Your task to perform on an android device: turn off notifications in google photos Image 0: 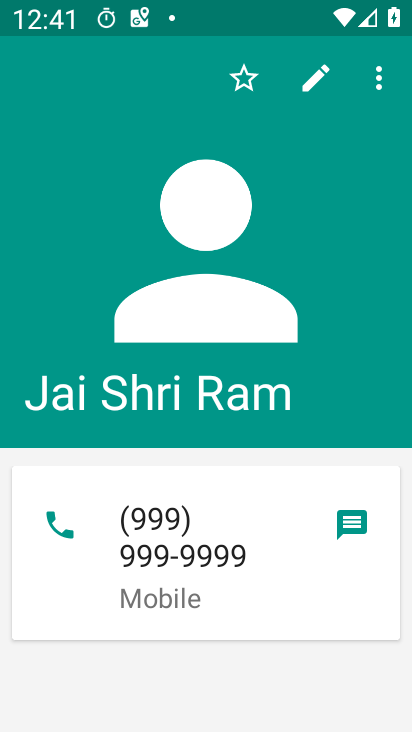
Step 0: press home button
Your task to perform on an android device: turn off notifications in google photos Image 1: 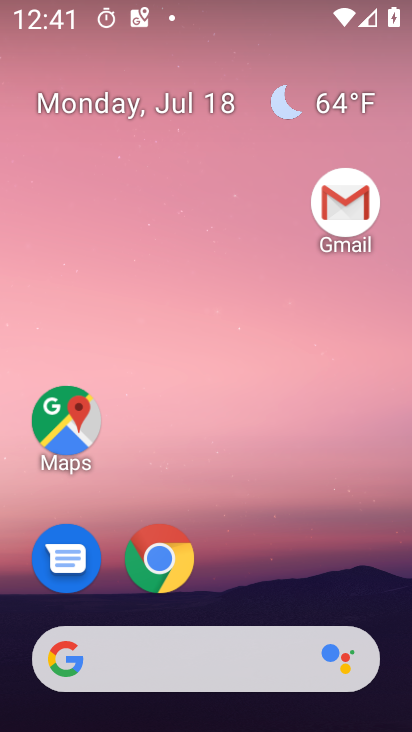
Step 1: drag from (330, 578) to (359, 174)
Your task to perform on an android device: turn off notifications in google photos Image 2: 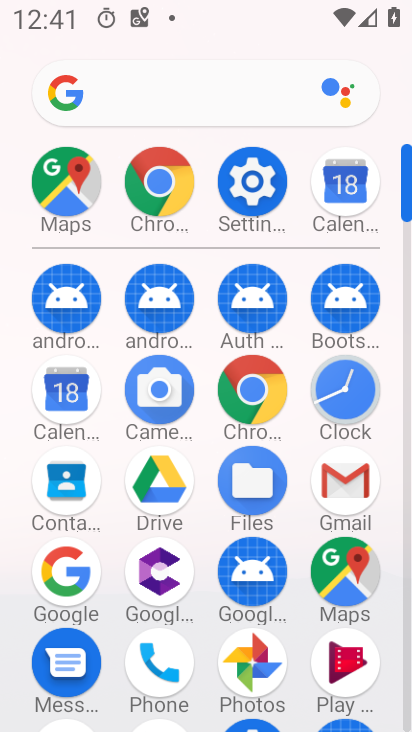
Step 2: click (257, 649)
Your task to perform on an android device: turn off notifications in google photos Image 3: 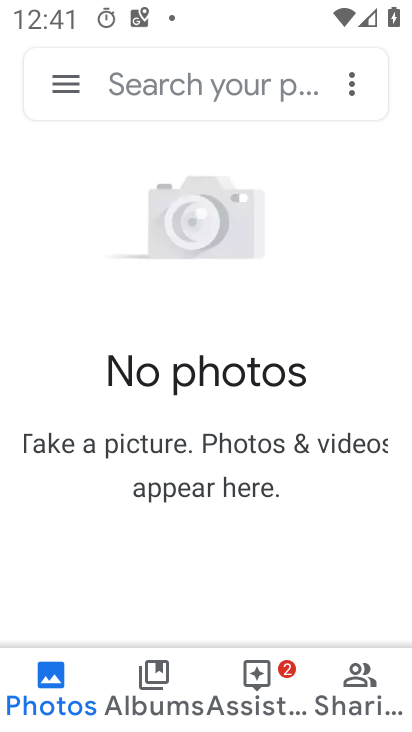
Step 3: click (71, 82)
Your task to perform on an android device: turn off notifications in google photos Image 4: 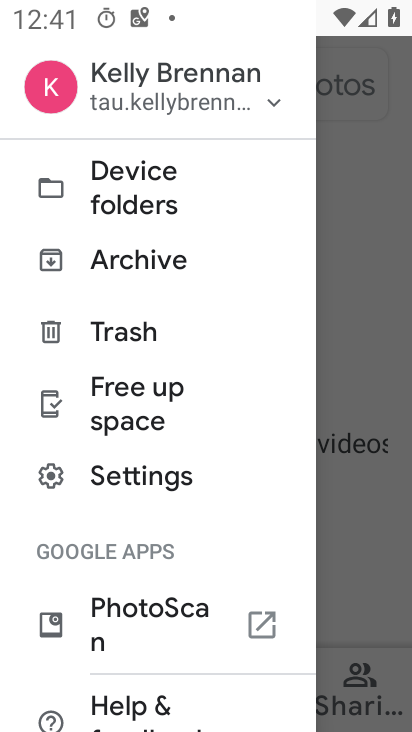
Step 4: drag from (245, 504) to (261, 412)
Your task to perform on an android device: turn off notifications in google photos Image 5: 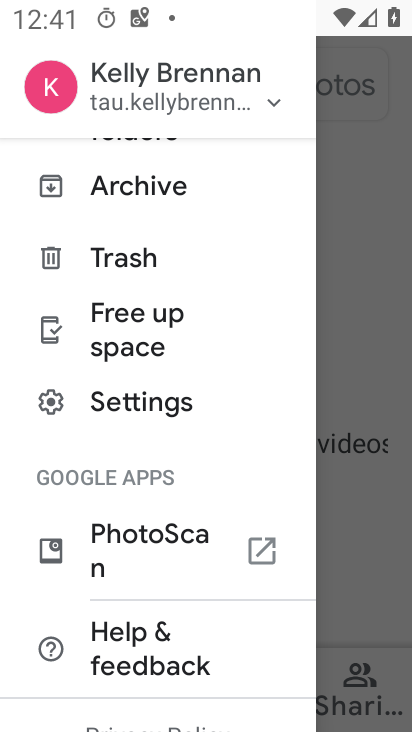
Step 5: drag from (212, 548) to (231, 420)
Your task to perform on an android device: turn off notifications in google photos Image 6: 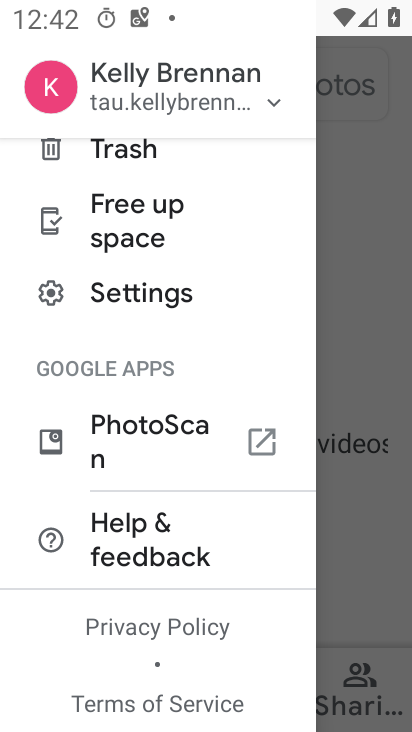
Step 6: drag from (232, 543) to (233, 438)
Your task to perform on an android device: turn off notifications in google photos Image 7: 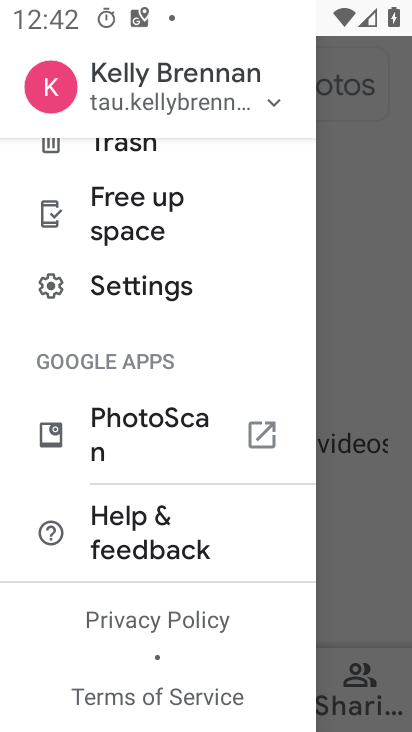
Step 7: drag from (216, 287) to (218, 400)
Your task to perform on an android device: turn off notifications in google photos Image 8: 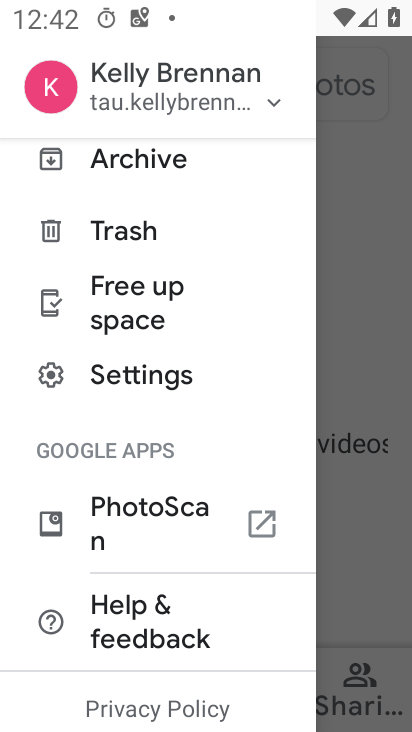
Step 8: drag from (224, 268) to (230, 387)
Your task to perform on an android device: turn off notifications in google photos Image 9: 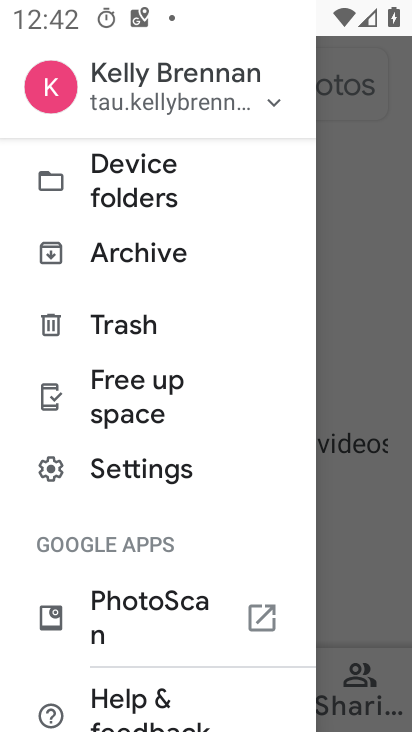
Step 9: drag from (232, 233) to (252, 358)
Your task to perform on an android device: turn off notifications in google photos Image 10: 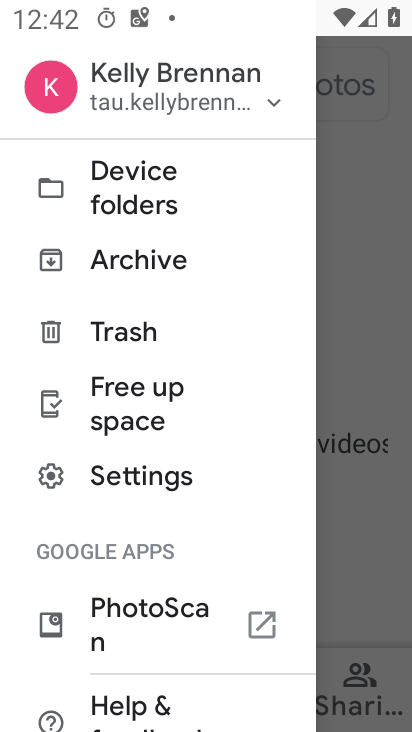
Step 10: click (180, 483)
Your task to perform on an android device: turn off notifications in google photos Image 11: 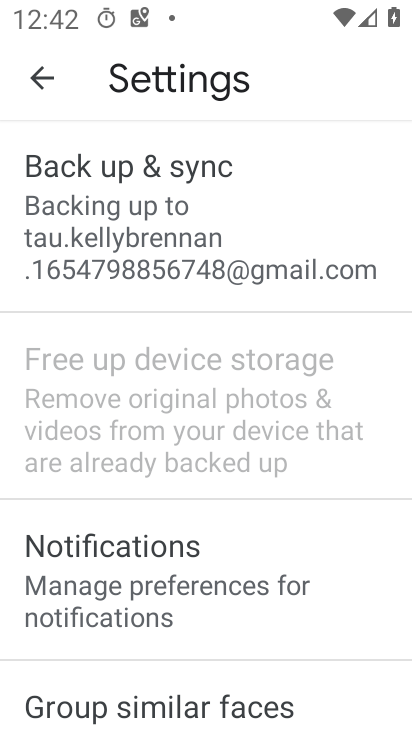
Step 11: drag from (279, 493) to (306, 411)
Your task to perform on an android device: turn off notifications in google photos Image 12: 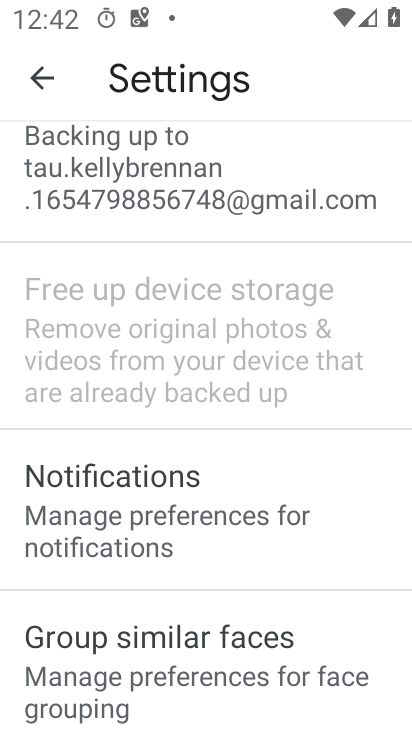
Step 12: drag from (307, 547) to (322, 460)
Your task to perform on an android device: turn off notifications in google photos Image 13: 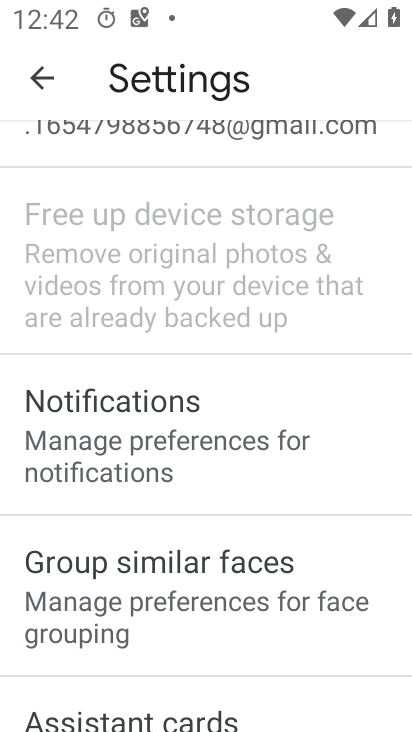
Step 13: click (279, 463)
Your task to perform on an android device: turn off notifications in google photos Image 14: 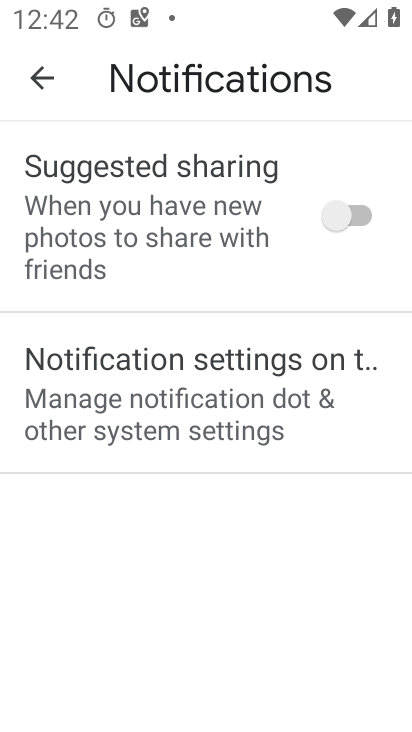
Step 14: click (245, 425)
Your task to perform on an android device: turn off notifications in google photos Image 15: 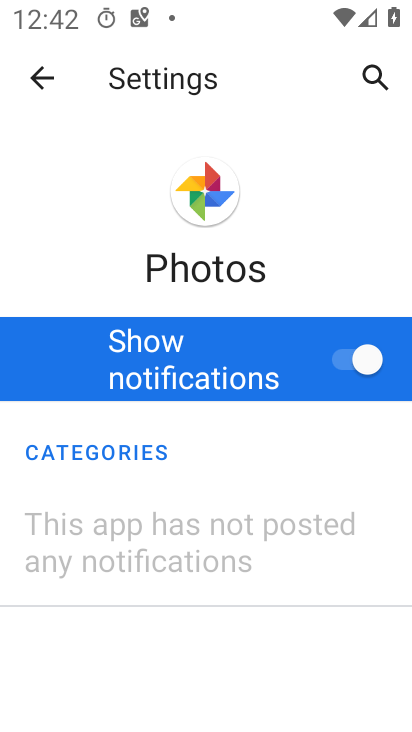
Step 15: click (362, 366)
Your task to perform on an android device: turn off notifications in google photos Image 16: 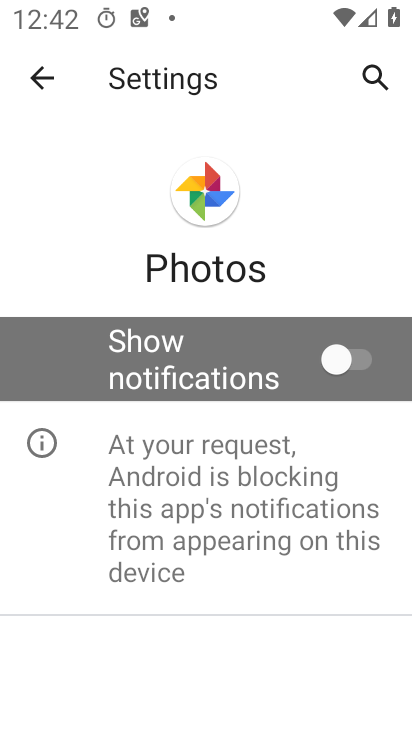
Step 16: task complete